Your task to perform on an android device: Open settings Image 0: 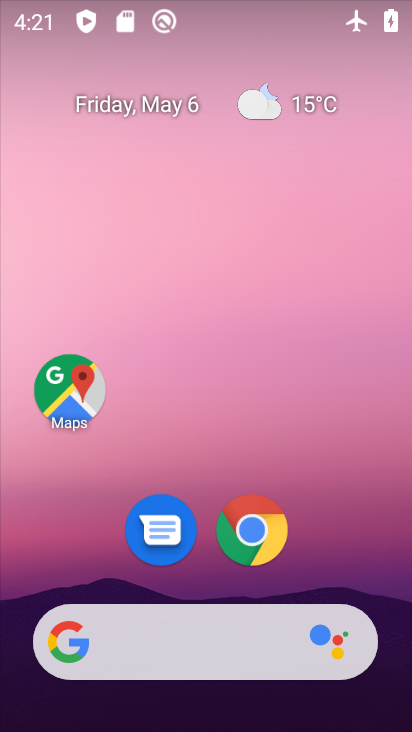
Step 0: drag from (339, 537) to (276, 128)
Your task to perform on an android device: Open settings Image 1: 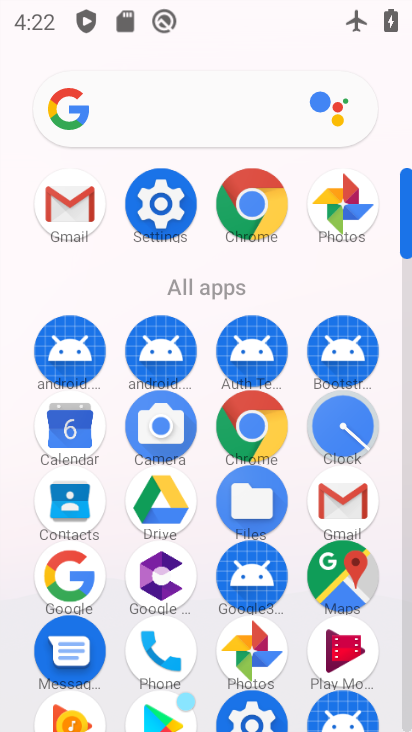
Step 1: click (171, 205)
Your task to perform on an android device: Open settings Image 2: 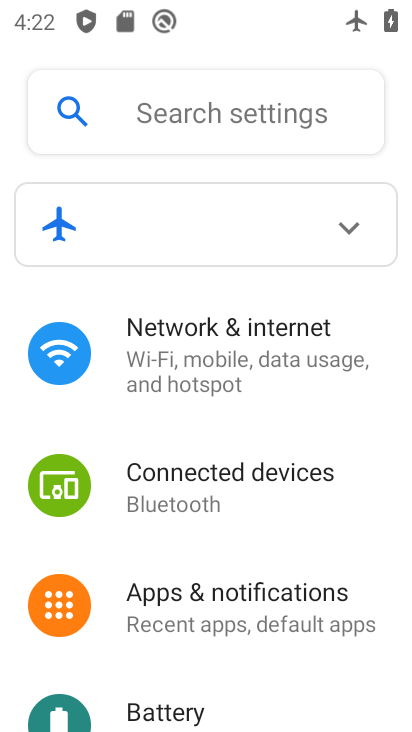
Step 2: task complete